Your task to perform on an android device: Add "bose soundlink" to the cart on target Image 0: 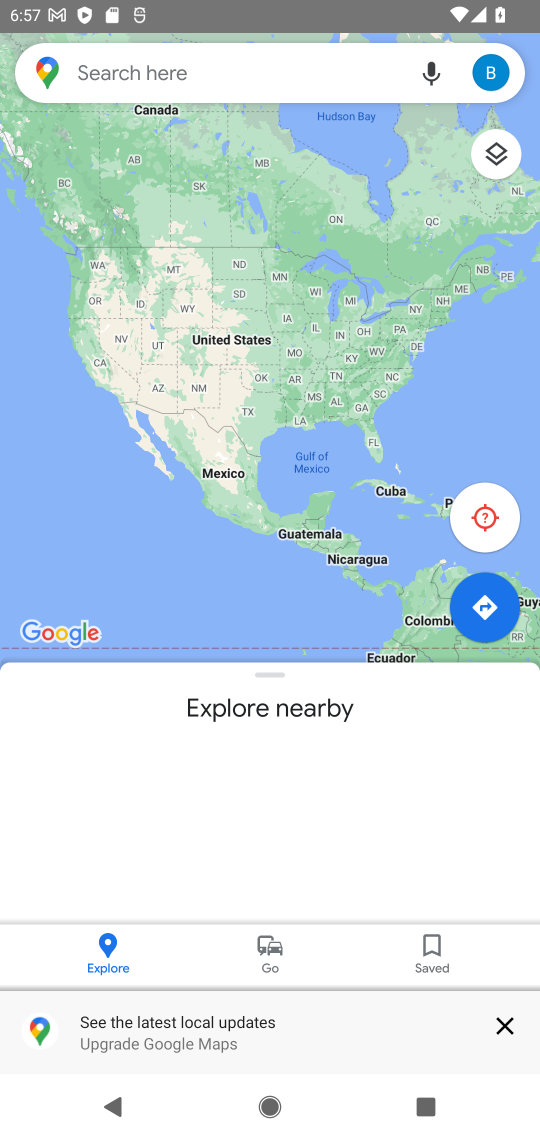
Step 0: press home button
Your task to perform on an android device: Add "bose soundlink" to the cart on target Image 1: 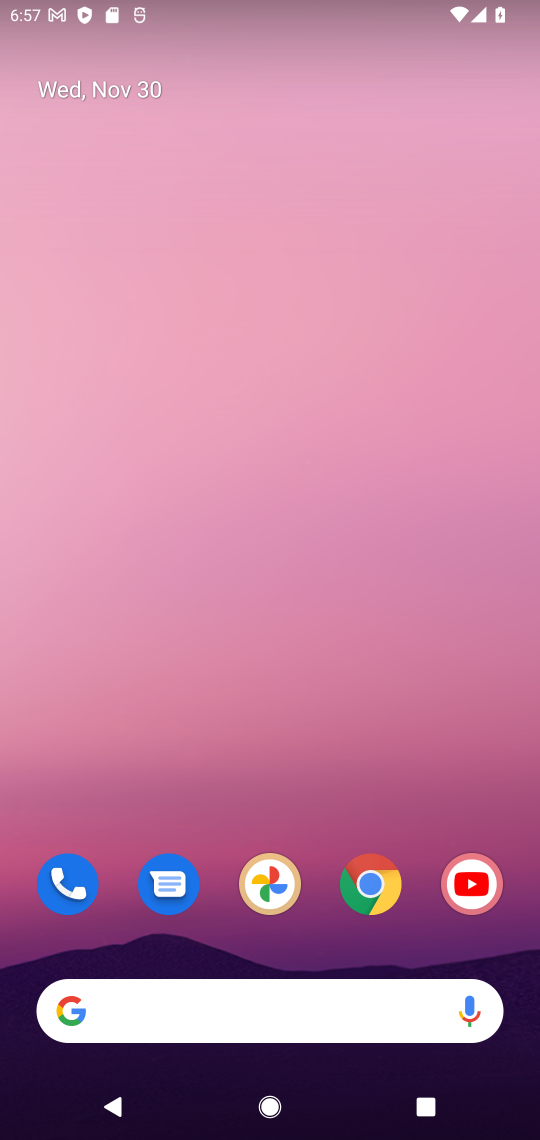
Step 1: click (365, 892)
Your task to perform on an android device: Add "bose soundlink" to the cart on target Image 2: 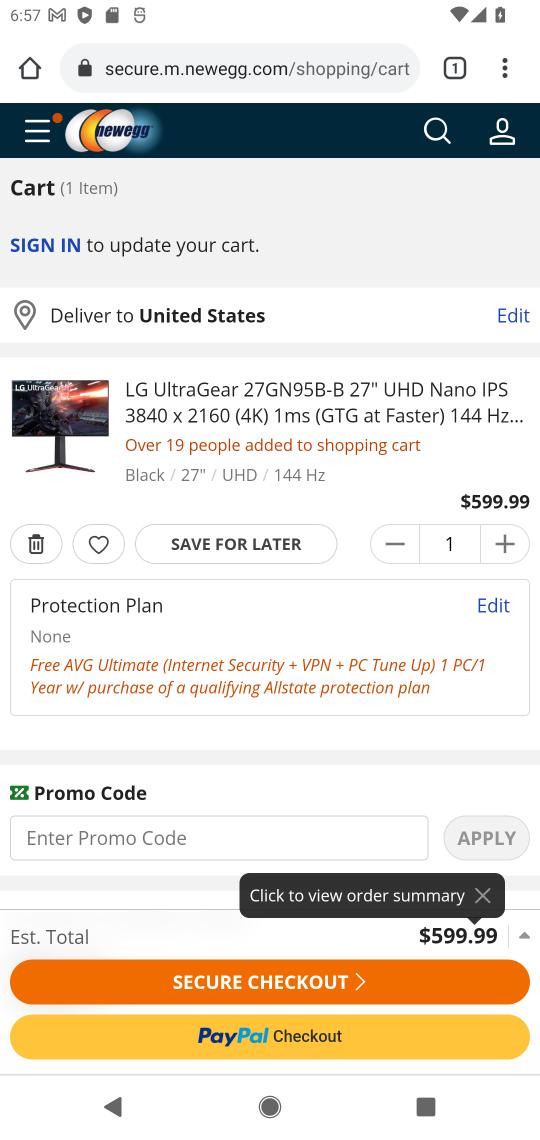
Step 2: click (233, 77)
Your task to perform on an android device: Add "bose soundlink" to the cart on target Image 3: 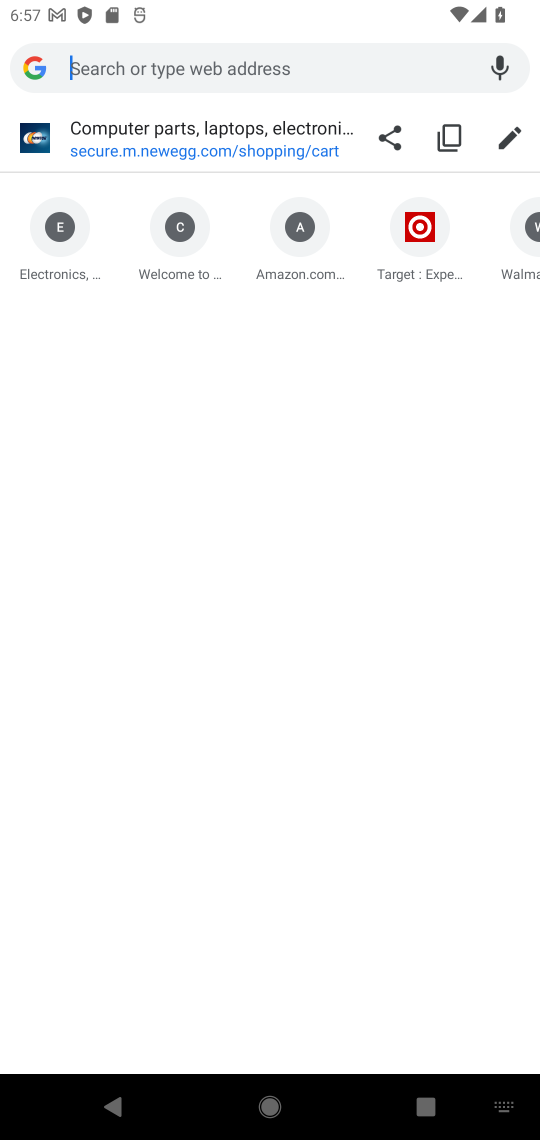
Step 3: click (399, 254)
Your task to perform on an android device: Add "bose soundlink" to the cart on target Image 4: 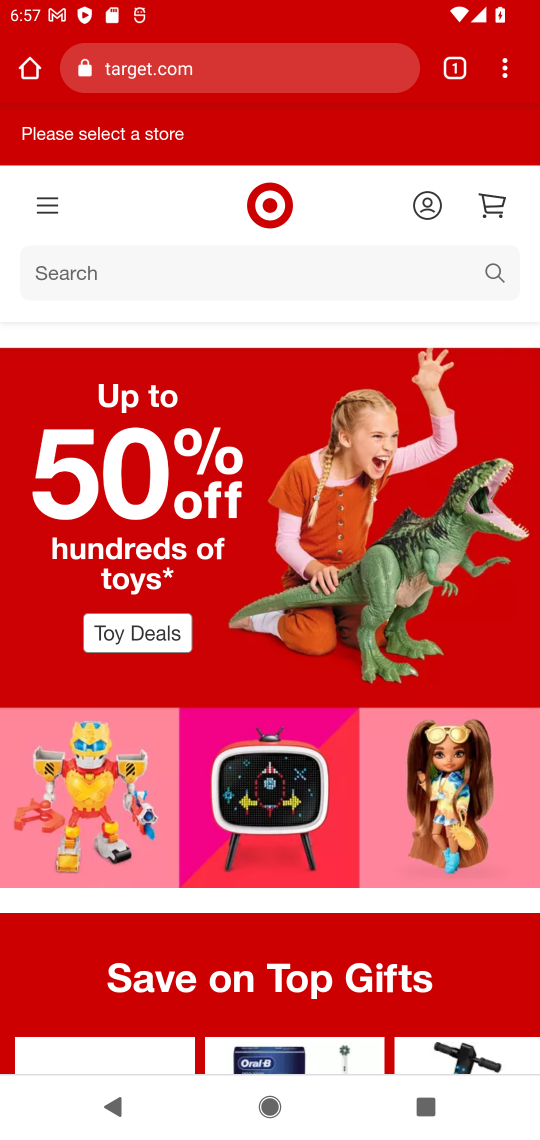
Step 4: click (109, 269)
Your task to perform on an android device: Add "bose soundlink" to the cart on target Image 5: 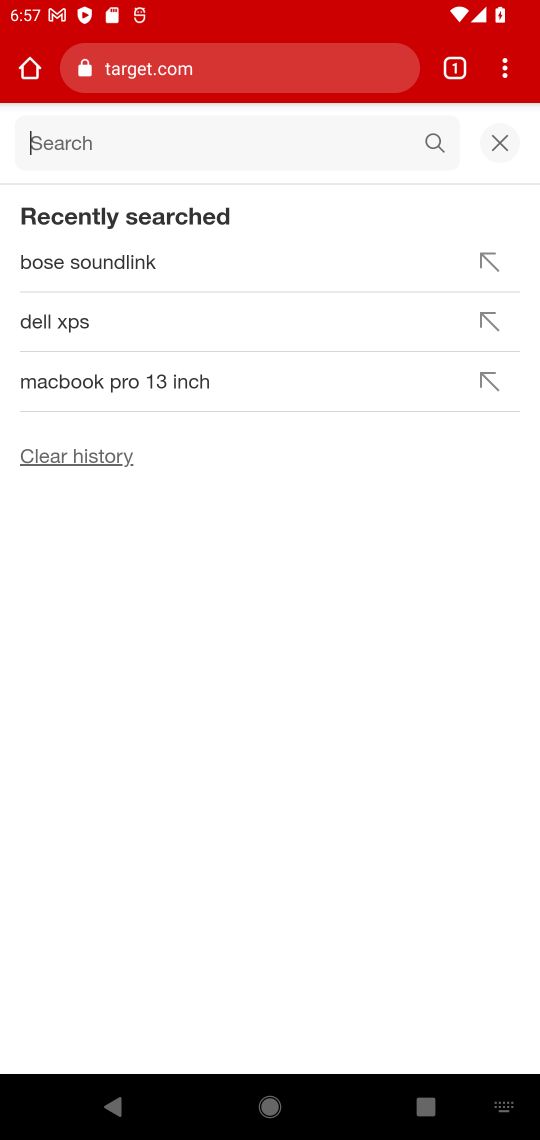
Step 5: type "bose soundlink"
Your task to perform on an android device: Add "bose soundlink" to the cart on target Image 6: 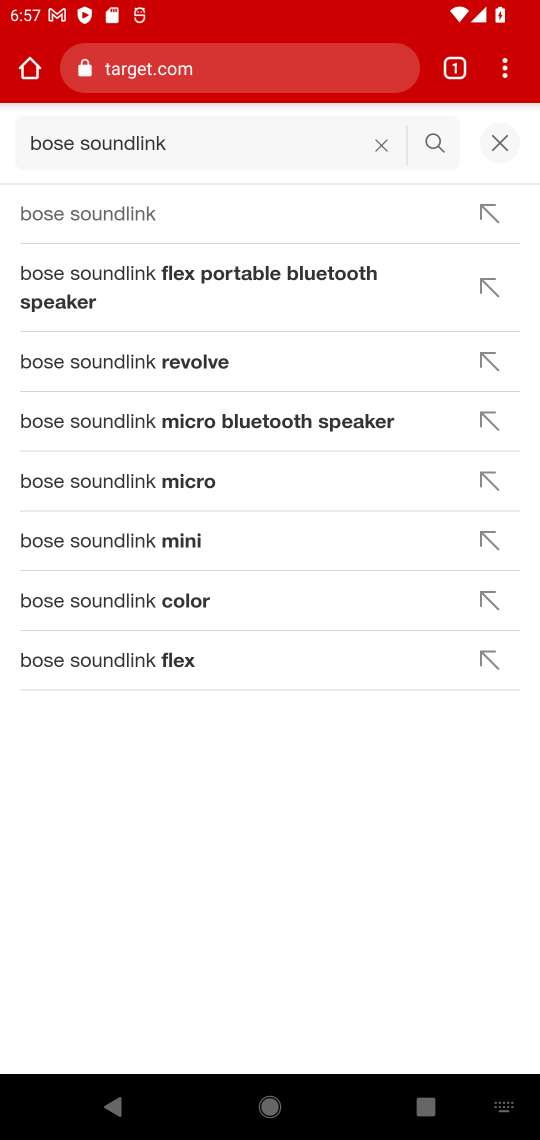
Step 6: click (96, 214)
Your task to perform on an android device: Add "bose soundlink" to the cart on target Image 7: 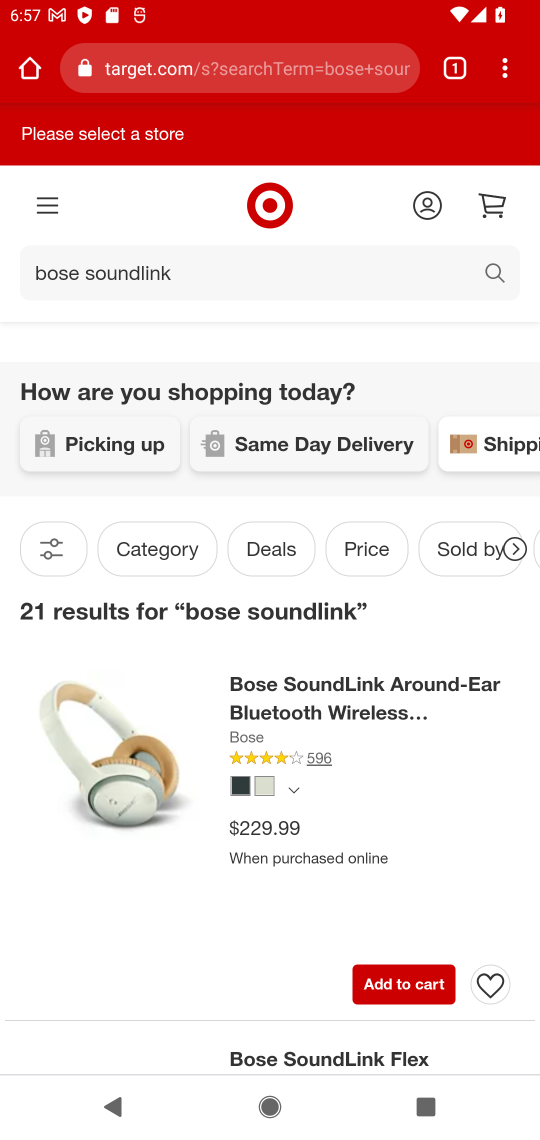
Step 7: click (383, 980)
Your task to perform on an android device: Add "bose soundlink" to the cart on target Image 8: 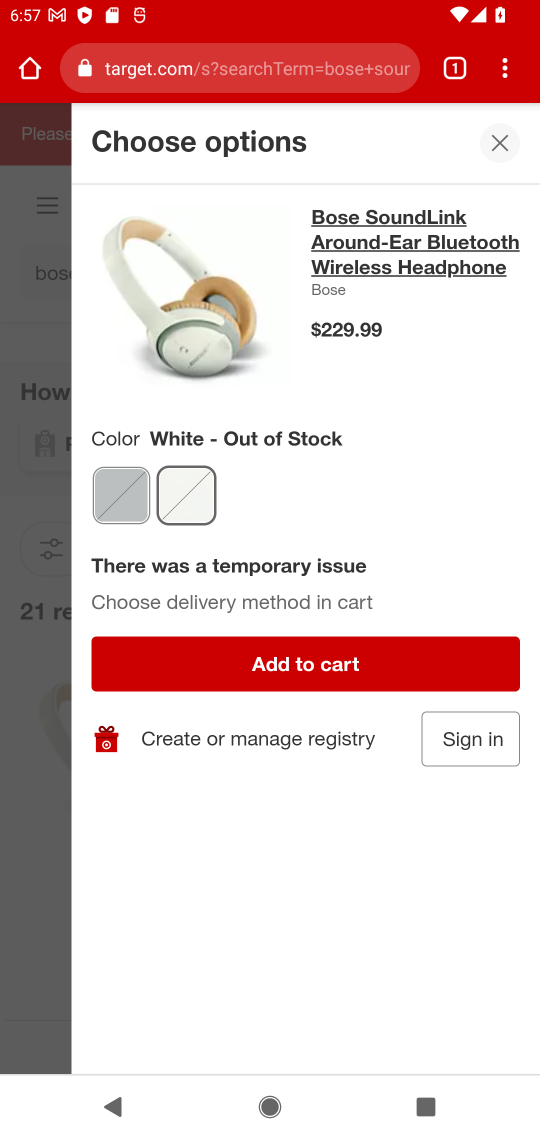
Step 8: click (273, 661)
Your task to perform on an android device: Add "bose soundlink" to the cart on target Image 9: 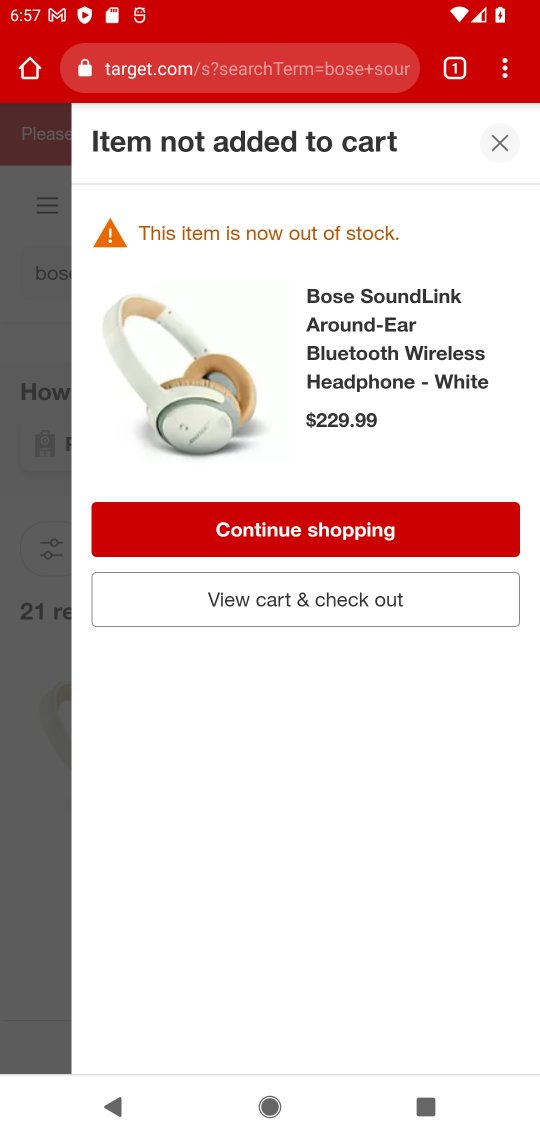
Step 9: click (285, 605)
Your task to perform on an android device: Add "bose soundlink" to the cart on target Image 10: 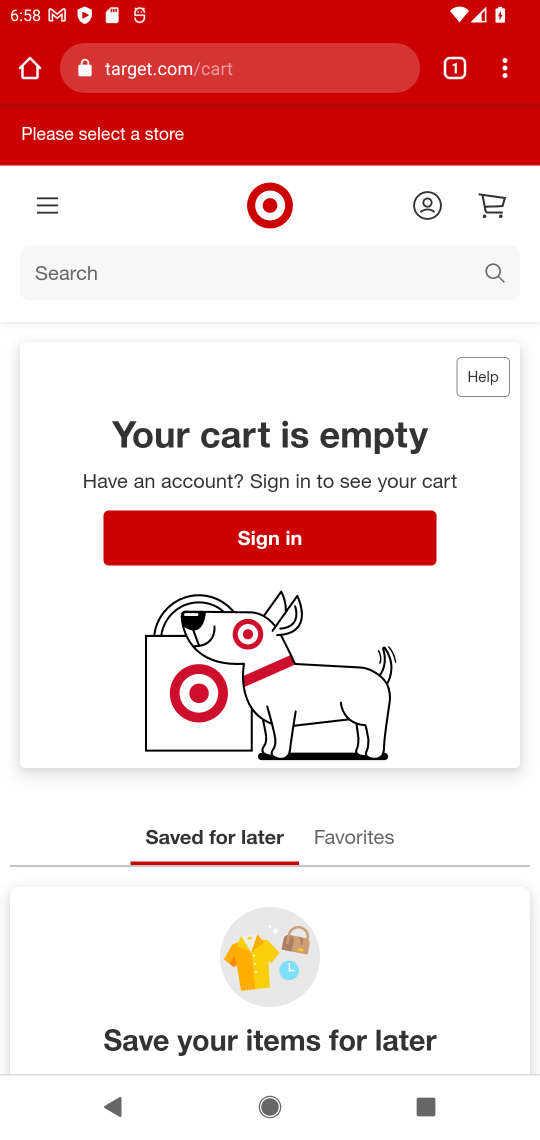
Step 10: task complete